Your task to perform on an android device: change the clock style Image 0: 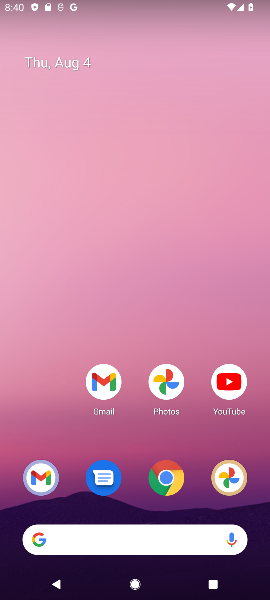
Step 0: drag from (174, 528) to (169, 60)
Your task to perform on an android device: change the clock style Image 1: 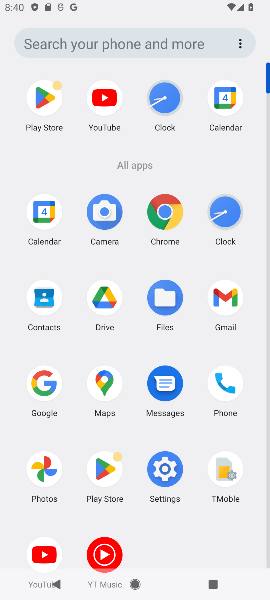
Step 1: click (226, 223)
Your task to perform on an android device: change the clock style Image 2: 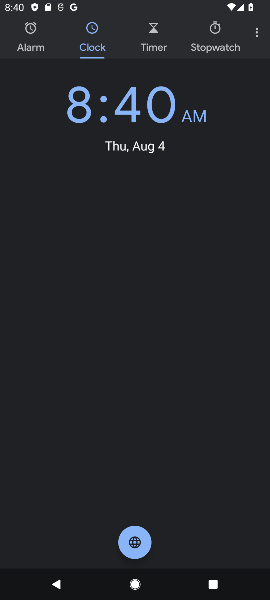
Step 2: click (263, 29)
Your task to perform on an android device: change the clock style Image 3: 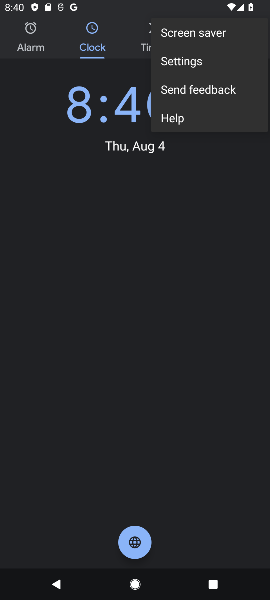
Step 3: click (191, 60)
Your task to perform on an android device: change the clock style Image 4: 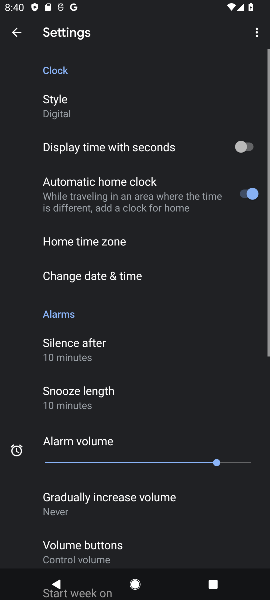
Step 4: click (62, 100)
Your task to perform on an android device: change the clock style Image 5: 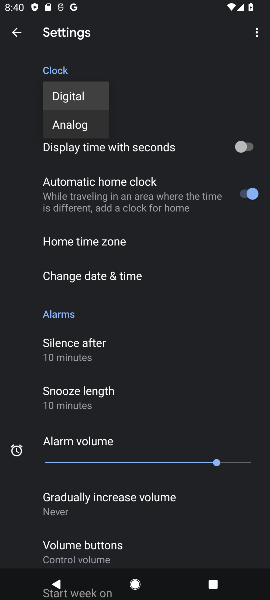
Step 5: click (79, 129)
Your task to perform on an android device: change the clock style Image 6: 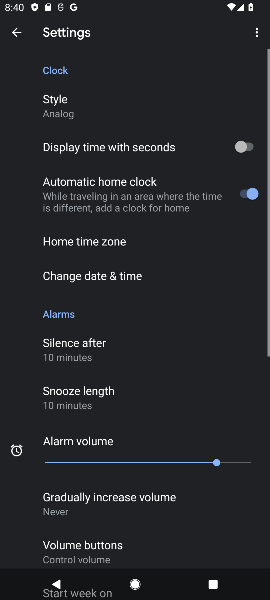
Step 6: task complete